Your task to perform on an android device: turn on location history Image 0: 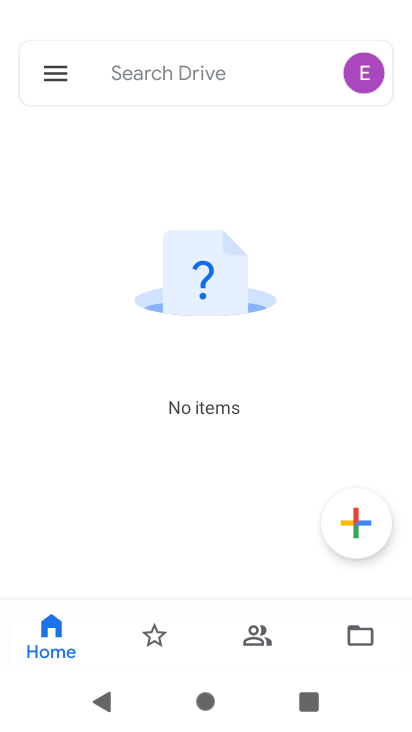
Step 0: press home button
Your task to perform on an android device: turn on location history Image 1: 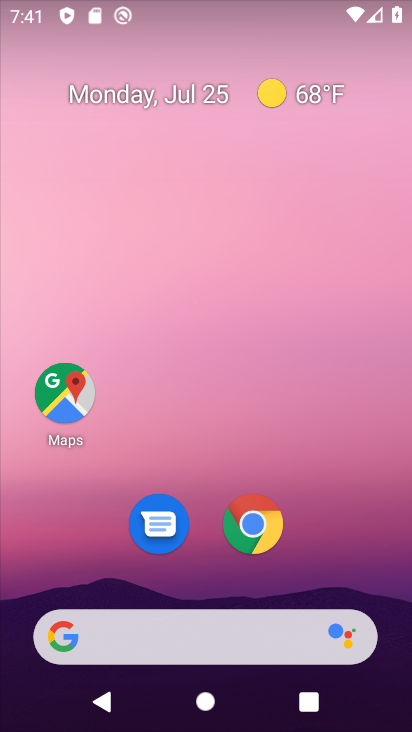
Step 1: drag from (336, 546) to (371, 66)
Your task to perform on an android device: turn on location history Image 2: 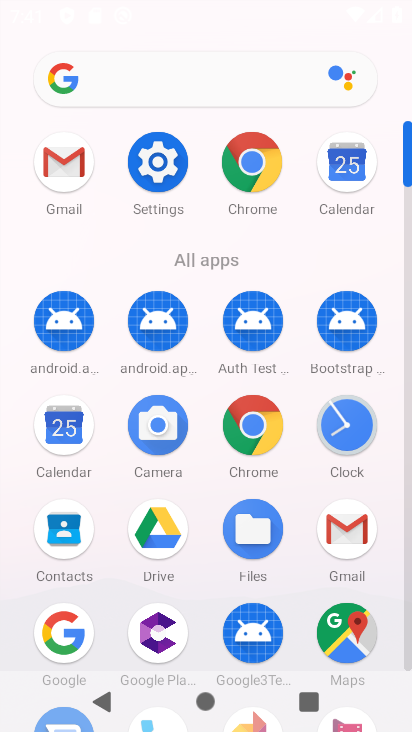
Step 2: click (174, 162)
Your task to perform on an android device: turn on location history Image 3: 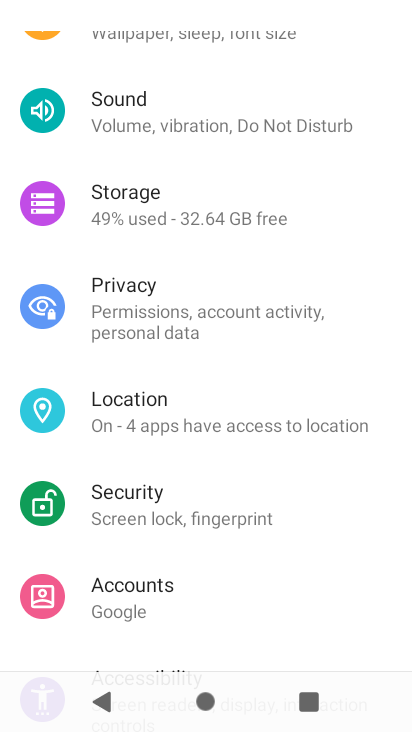
Step 3: click (232, 412)
Your task to perform on an android device: turn on location history Image 4: 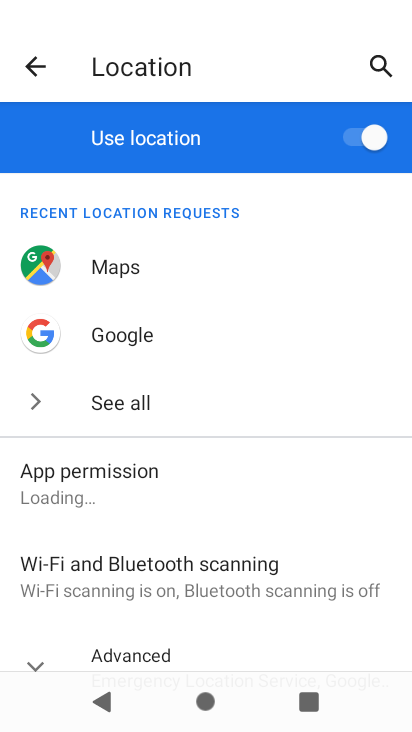
Step 4: drag from (229, 495) to (285, 166)
Your task to perform on an android device: turn on location history Image 5: 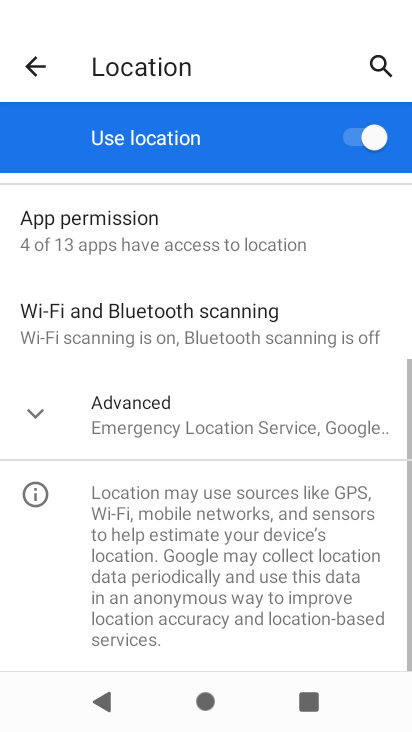
Step 5: click (37, 405)
Your task to perform on an android device: turn on location history Image 6: 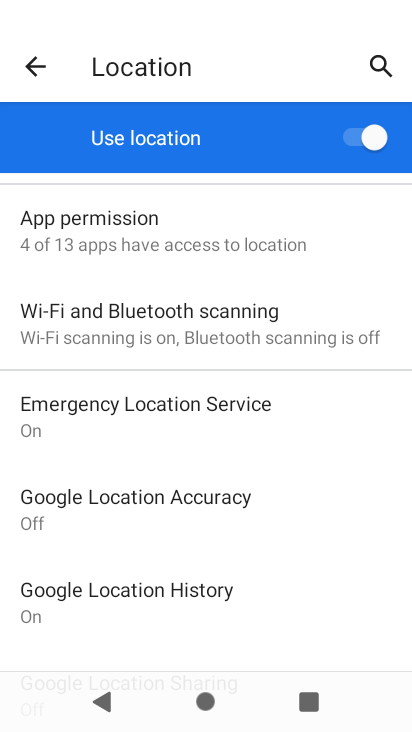
Step 6: task complete